Your task to perform on an android device: Go to network settings Image 0: 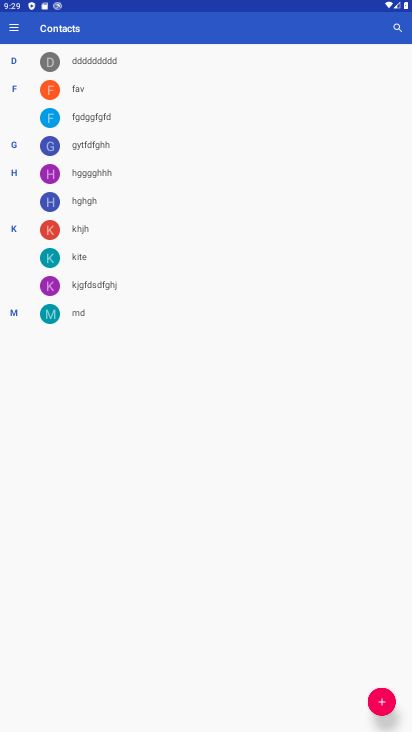
Step 0: press home button
Your task to perform on an android device: Go to network settings Image 1: 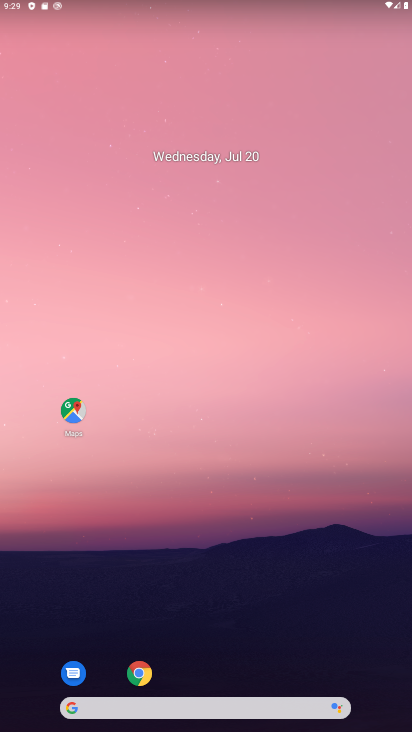
Step 1: drag from (200, 713) to (189, 200)
Your task to perform on an android device: Go to network settings Image 2: 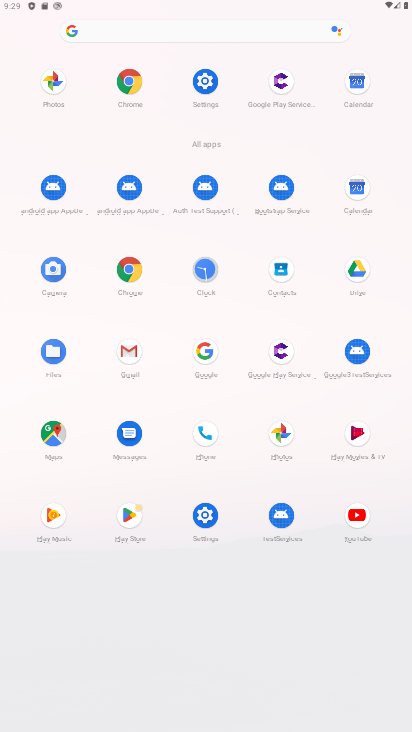
Step 2: click (205, 82)
Your task to perform on an android device: Go to network settings Image 3: 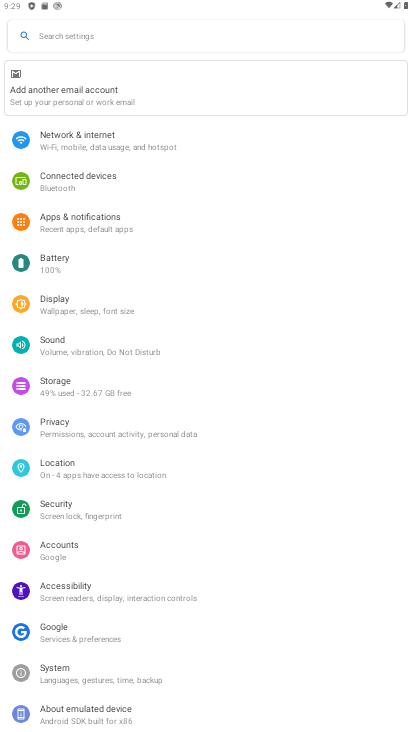
Step 3: click (132, 148)
Your task to perform on an android device: Go to network settings Image 4: 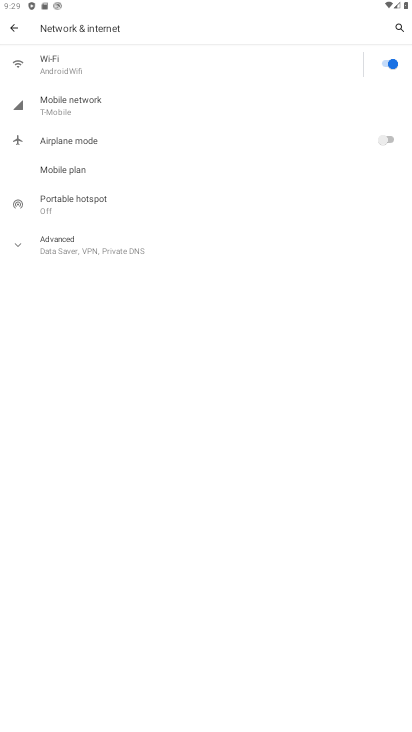
Step 4: task complete